Your task to perform on an android device: toggle improve location accuracy Image 0: 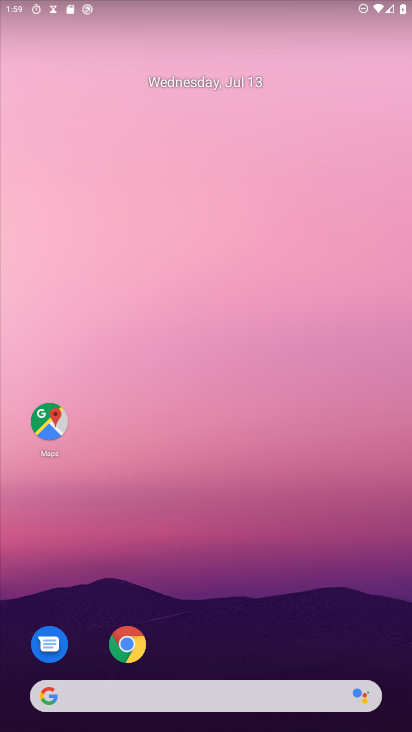
Step 0: drag from (261, 594) to (248, 31)
Your task to perform on an android device: toggle improve location accuracy Image 1: 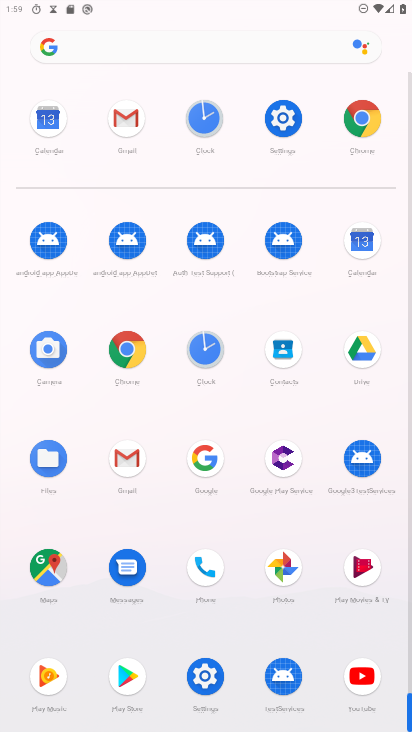
Step 1: click (285, 123)
Your task to perform on an android device: toggle improve location accuracy Image 2: 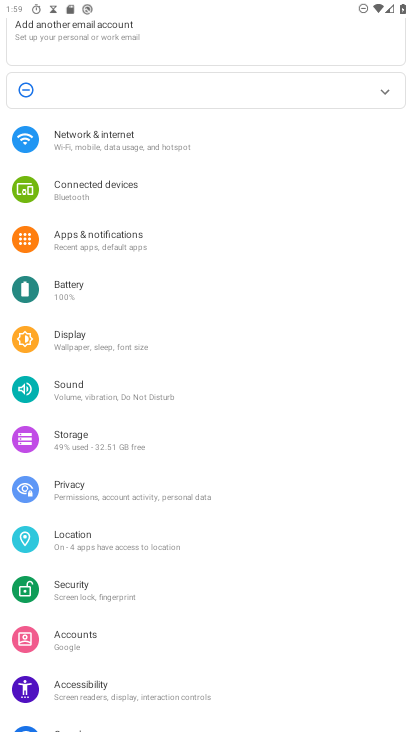
Step 2: click (70, 530)
Your task to perform on an android device: toggle improve location accuracy Image 3: 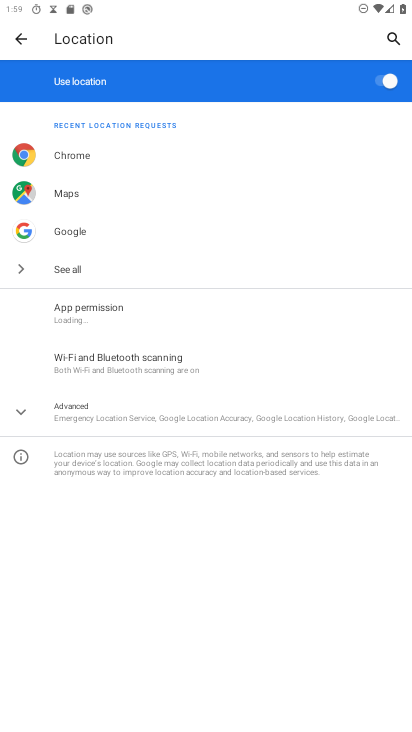
Step 3: click (25, 407)
Your task to perform on an android device: toggle improve location accuracy Image 4: 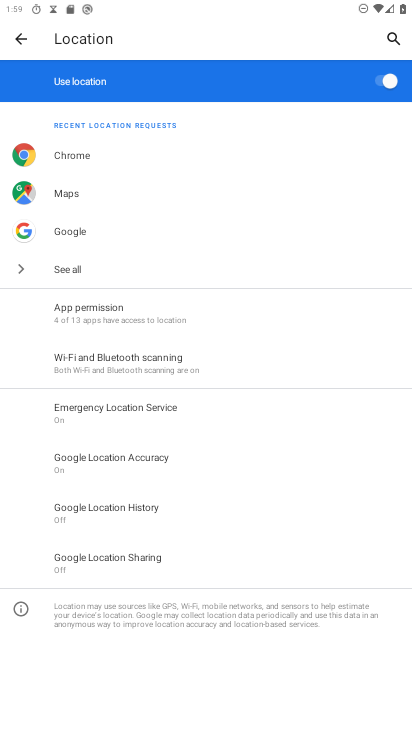
Step 4: click (131, 453)
Your task to perform on an android device: toggle improve location accuracy Image 5: 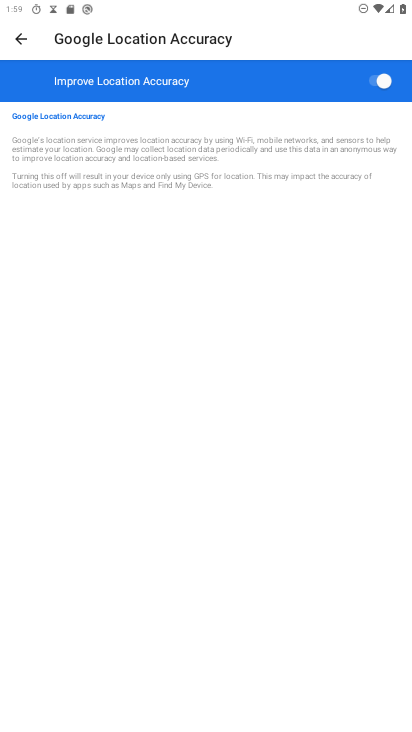
Step 5: click (368, 84)
Your task to perform on an android device: toggle improve location accuracy Image 6: 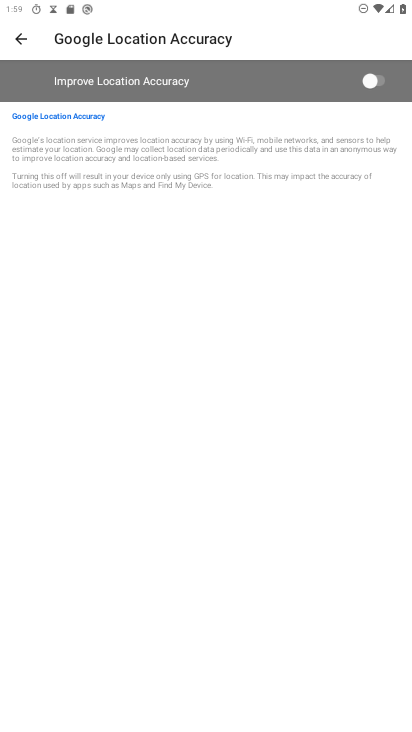
Step 6: task complete